Your task to perform on an android device: Open the calendar app, open the side menu, and click the "Day" option Image 0: 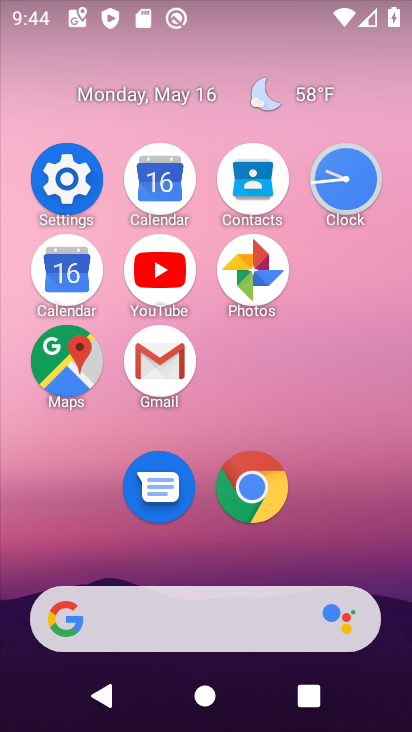
Step 0: click (172, 190)
Your task to perform on an android device: Open the calendar app, open the side menu, and click the "Day" option Image 1: 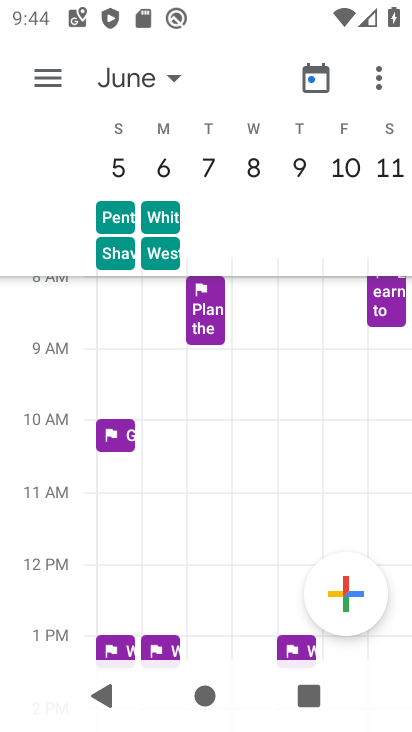
Step 1: click (58, 77)
Your task to perform on an android device: Open the calendar app, open the side menu, and click the "Day" option Image 2: 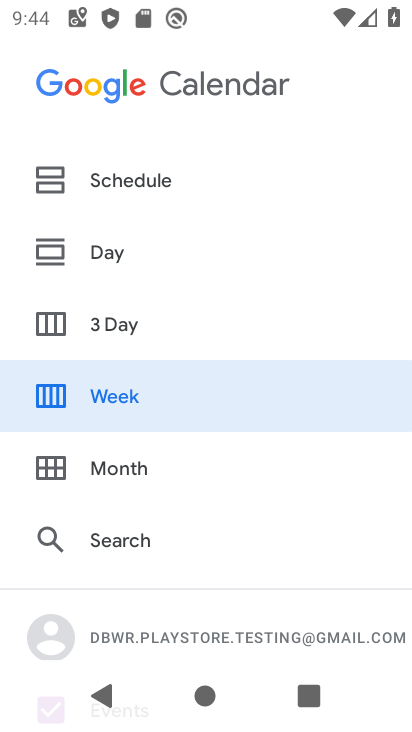
Step 2: click (61, 268)
Your task to perform on an android device: Open the calendar app, open the side menu, and click the "Day" option Image 3: 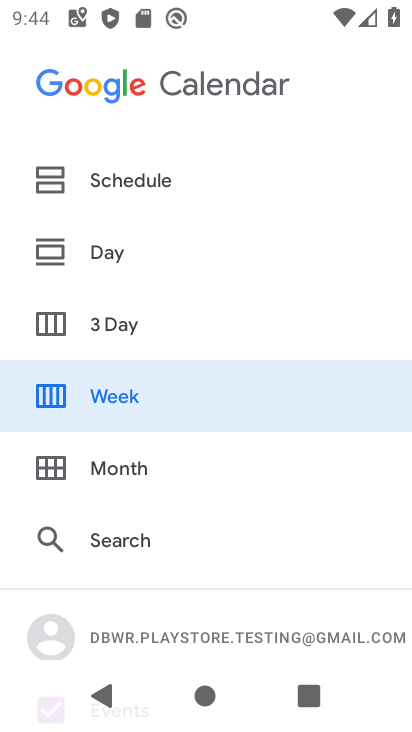
Step 3: click (65, 237)
Your task to perform on an android device: Open the calendar app, open the side menu, and click the "Day" option Image 4: 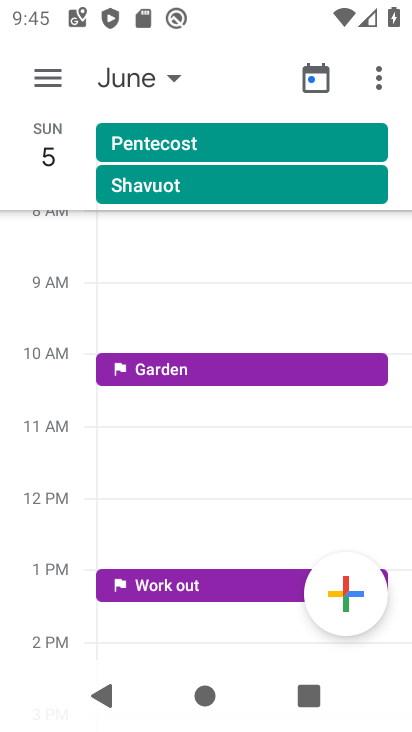
Step 4: task complete